Your task to perform on an android device: choose inbox layout in the gmail app Image 0: 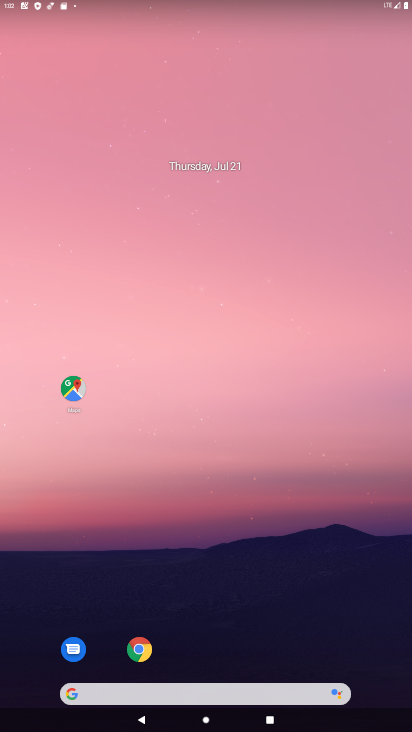
Step 0: drag from (208, 695) to (212, 184)
Your task to perform on an android device: choose inbox layout in the gmail app Image 1: 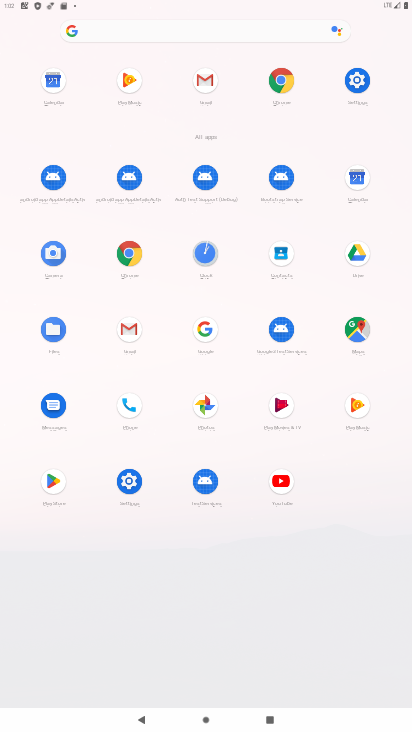
Step 1: click (197, 83)
Your task to perform on an android device: choose inbox layout in the gmail app Image 2: 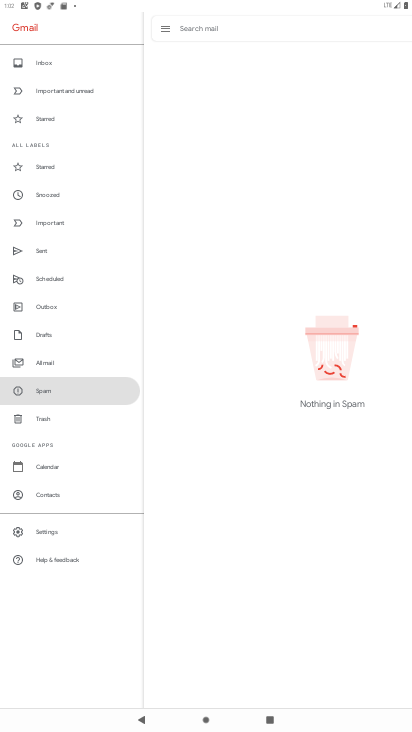
Step 2: click (45, 536)
Your task to perform on an android device: choose inbox layout in the gmail app Image 3: 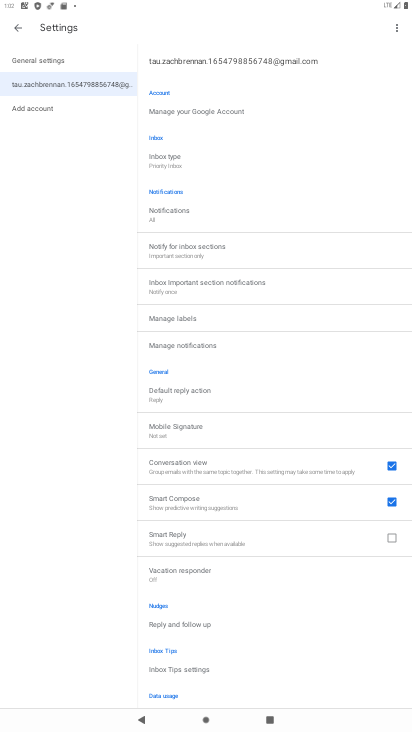
Step 3: click (177, 165)
Your task to perform on an android device: choose inbox layout in the gmail app Image 4: 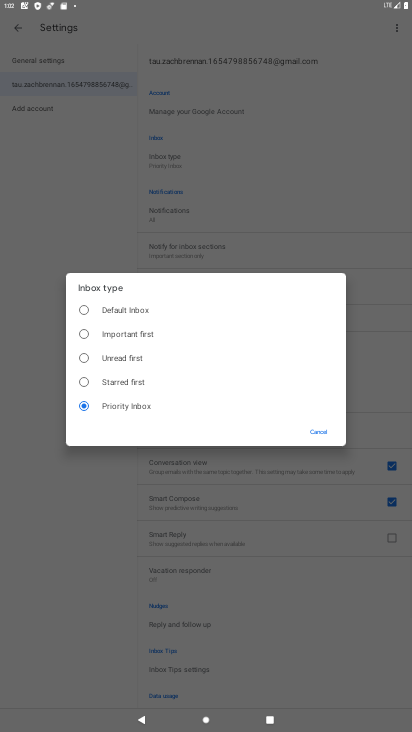
Step 4: click (143, 333)
Your task to perform on an android device: choose inbox layout in the gmail app Image 5: 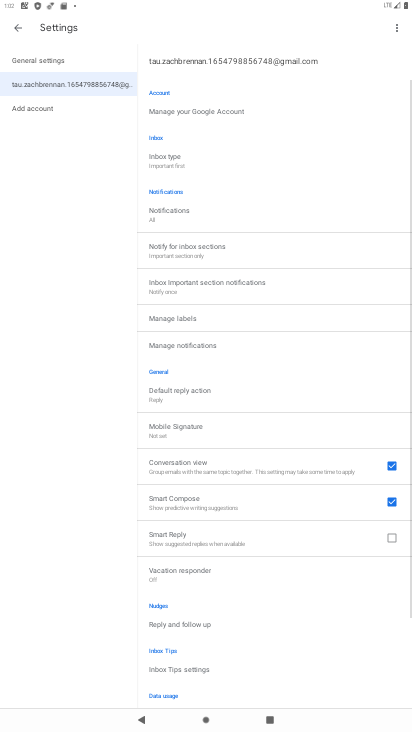
Step 5: task complete